Your task to perform on an android device: all mails in gmail Image 0: 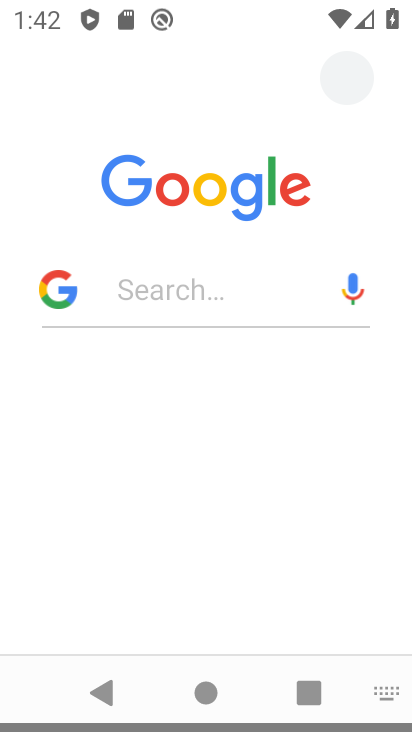
Step 0: press home button
Your task to perform on an android device: all mails in gmail Image 1: 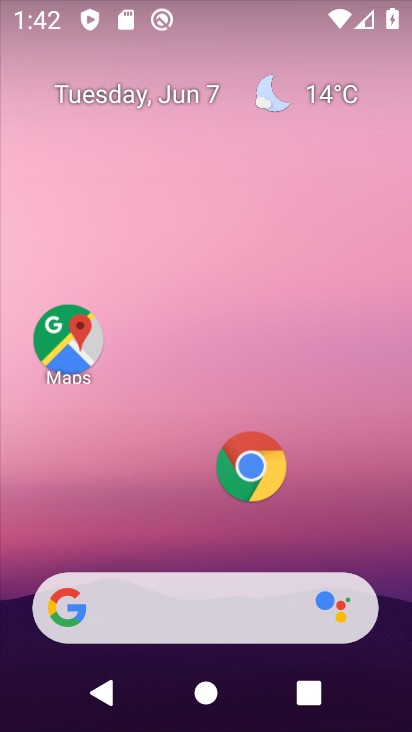
Step 1: drag from (162, 722) to (206, 174)
Your task to perform on an android device: all mails in gmail Image 2: 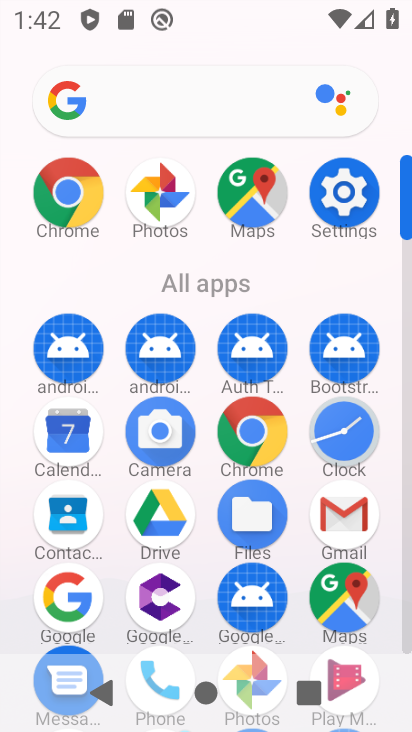
Step 2: click (340, 524)
Your task to perform on an android device: all mails in gmail Image 3: 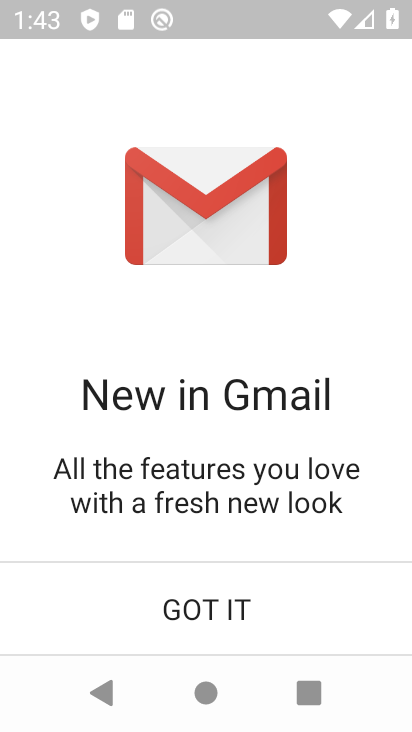
Step 3: click (197, 607)
Your task to perform on an android device: all mails in gmail Image 4: 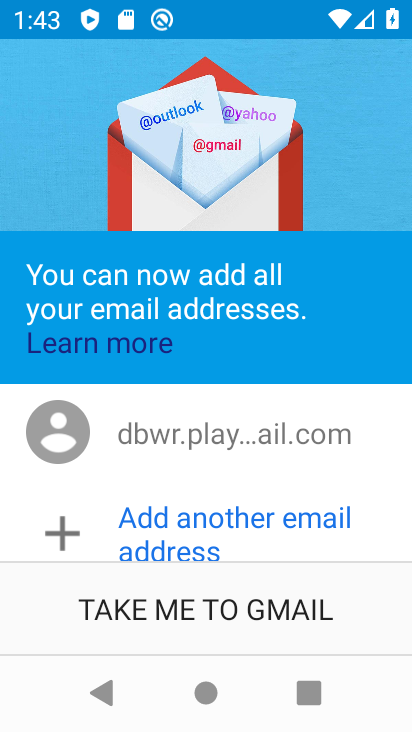
Step 4: click (195, 614)
Your task to perform on an android device: all mails in gmail Image 5: 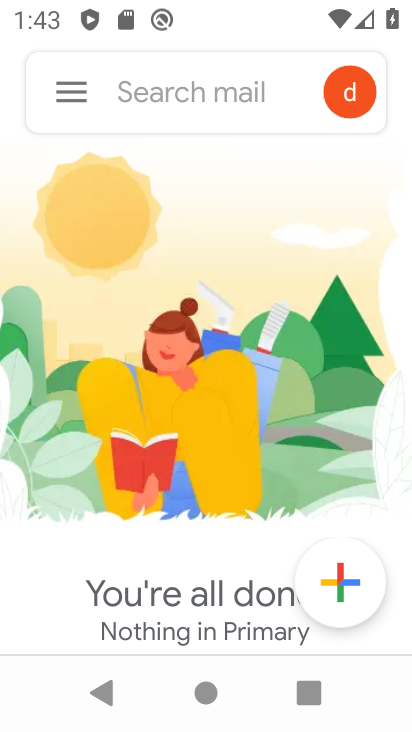
Step 5: click (75, 94)
Your task to perform on an android device: all mails in gmail Image 6: 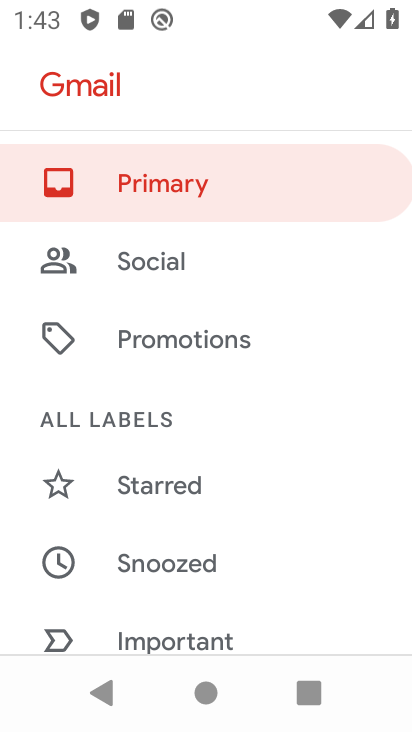
Step 6: drag from (329, 503) to (267, 161)
Your task to perform on an android device: all mails in gmail Image 7: 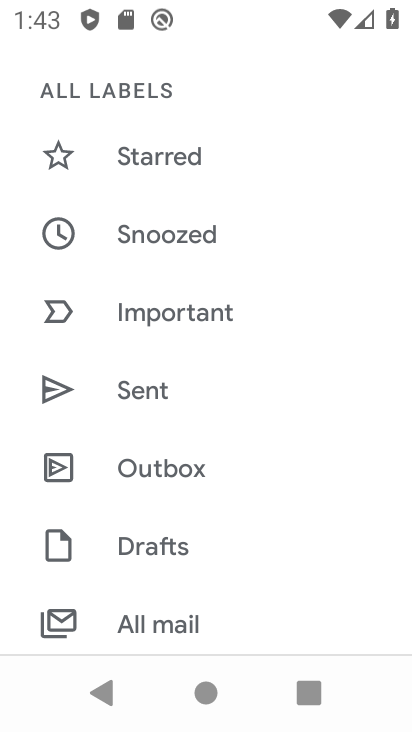
Step 7: click (185, 623)
Your task to perform on an android device: all mails in gmail Image 8: 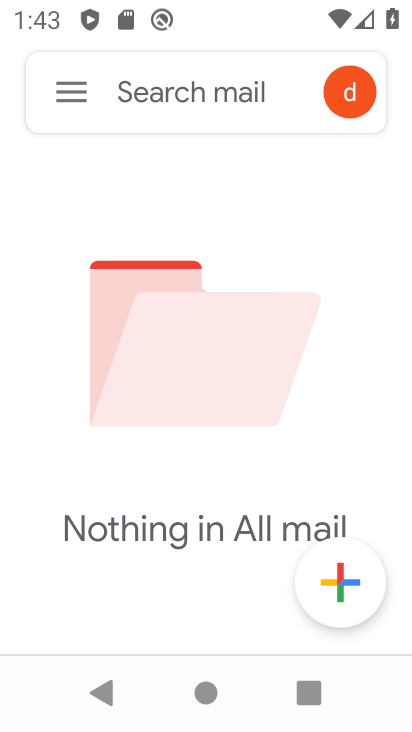
Step 8: task complete